Your task to perform on an android device: manage bookmarks in the chrome app Image 0: 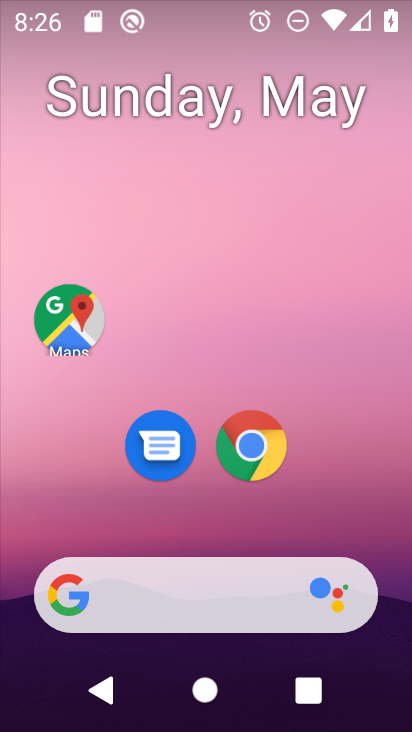
Step 0: click (231, 472)
Your task to perform on an android device: manage bookmarks in the chrome app Image 1: 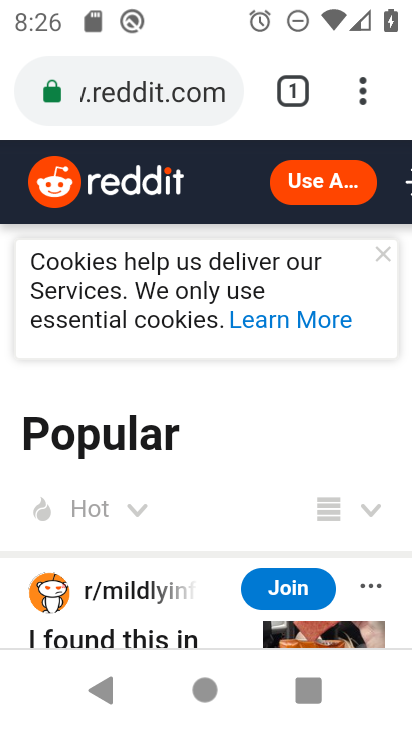
Step 1: click (377, 105)
Your task to perform on an android device: manage bookmarks in the chrome app Image 2: 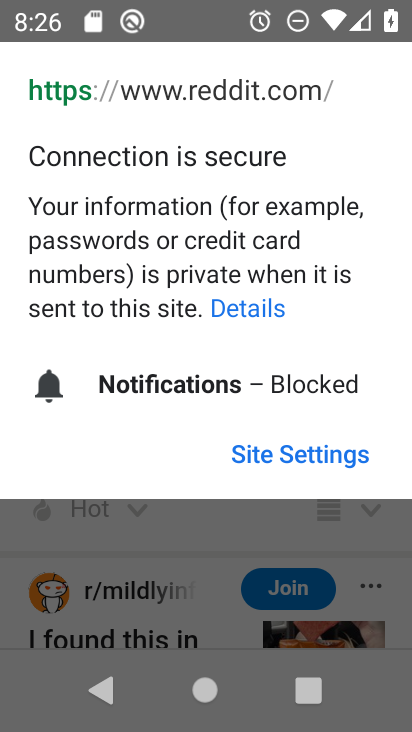
Step 2: click (216, 545)
Your task to perform on an android device: manage bookmarks in the chrome app Image 3: 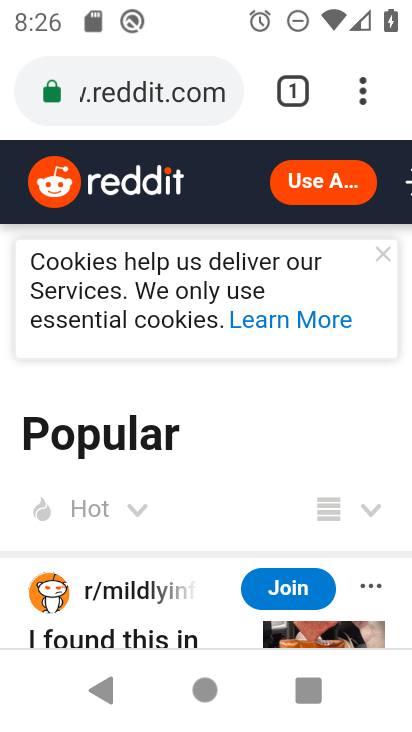
Step 3: click (369, 83)
Your task to perform on an android device: manage bookmarks in the chrome app Image 4: 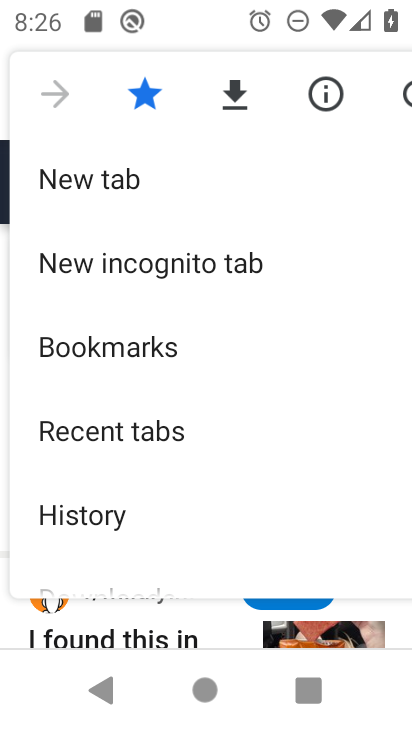
Step 4: click (176, 358)
Your task to perform on an android device: manage bookmarks in the chrome app Image 5: 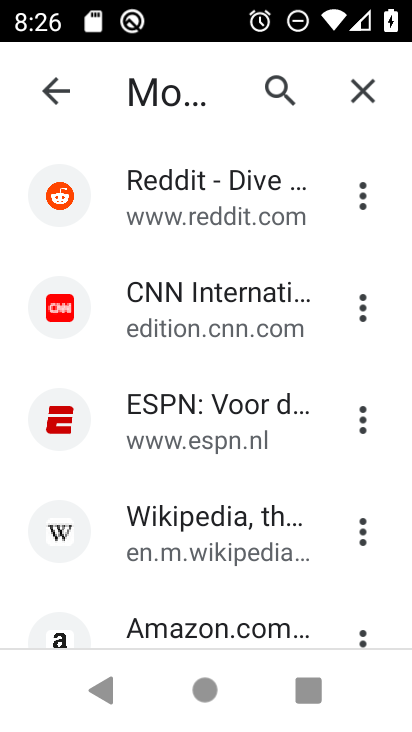
Step 5: task complete